Your task to perform on an android device: toggle location history Image 0: 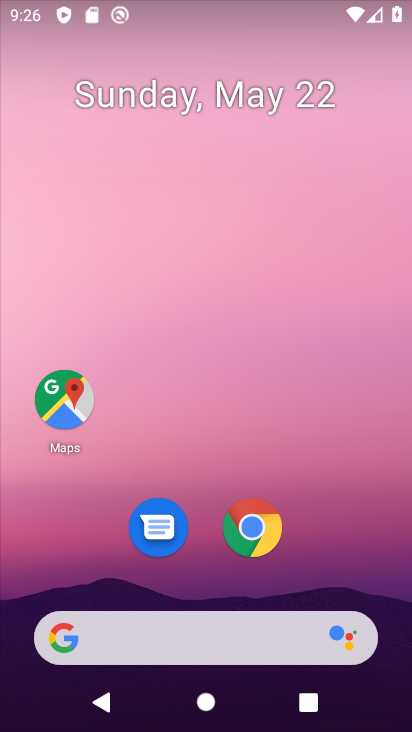
Step 0: drag from (362, 527) to (65, 30)
Your task to perform on an android device: toggle location history Image 1: 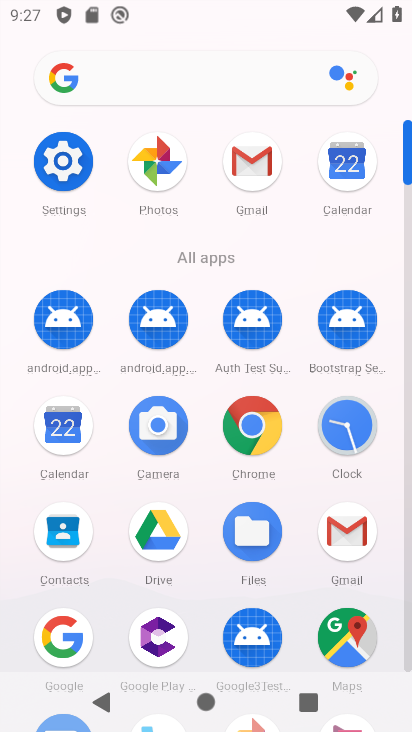
Step 1: click (40, 196)
Your task to perform on an android device: toggle location history Image 2: 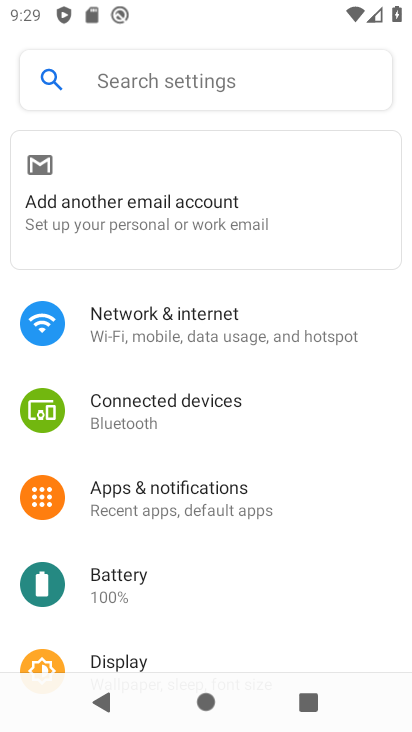
Step 2: drag from (184, 571) to (215, 482)
Your task to perform on an android device: toggle location history Image 3: 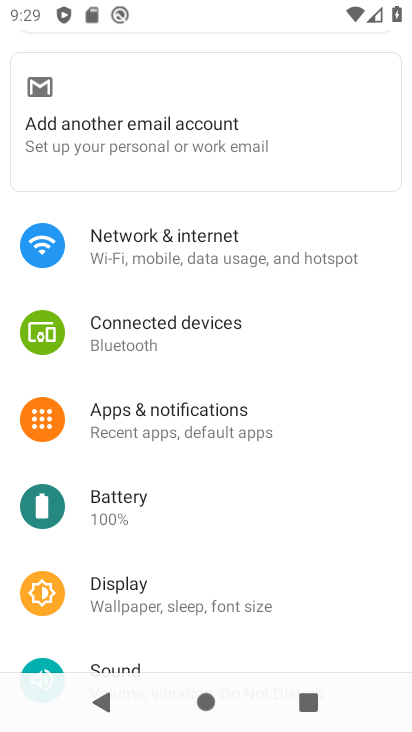
Step 3: drag from (138, 564) to (178, 305)
Your task to perform on an android device: toggle location history Image 4: 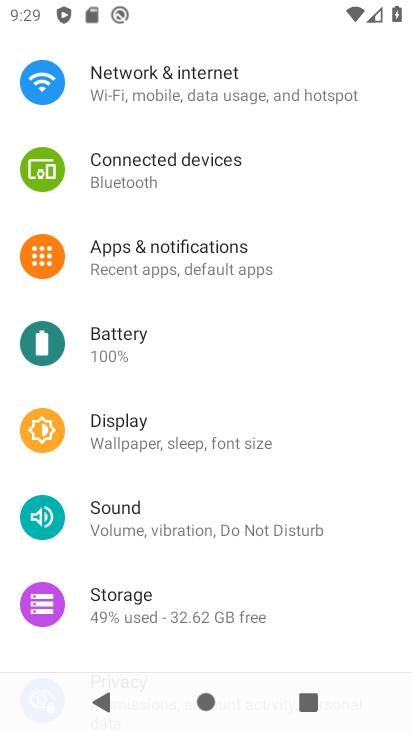
Step 4: drag from (230, 575) to (249, 479)
Your task to perform on an android device: toggle location history Image 5: 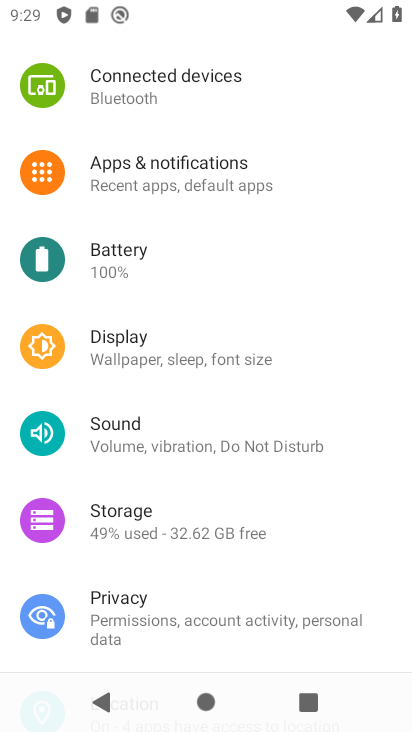
Step 5: drag from (160, 568) to (174, 500)
Your task to perform on an android device: toggle location history Image 6: 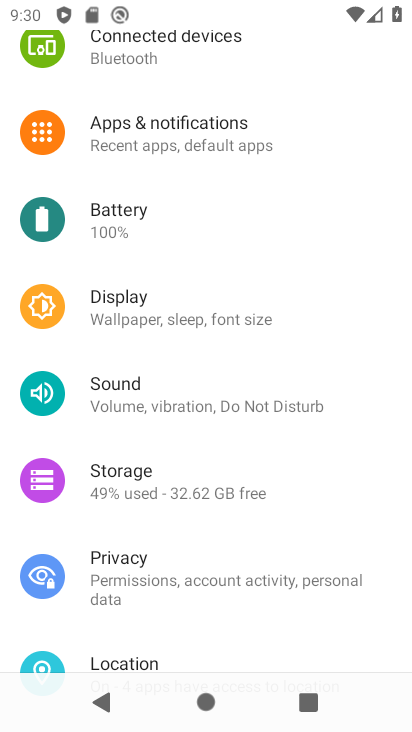
Step 6: drag from (217, 572) to (238, 447)
Your task to perform on an android device: toggle location history Image 7: 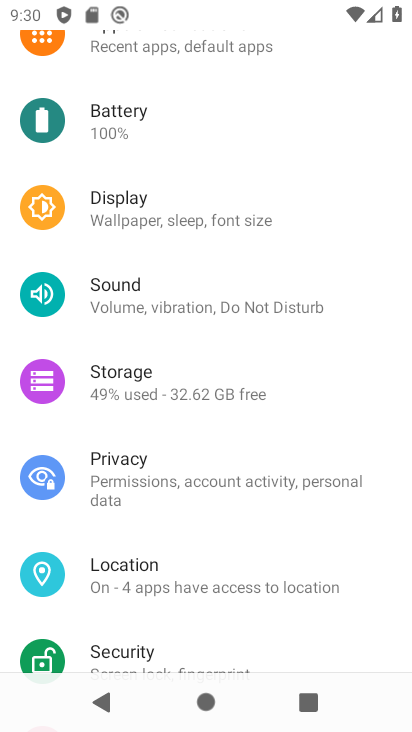
Step 7: click (230, 597)
Your task to perform on an android device: toggle location history Image 8: 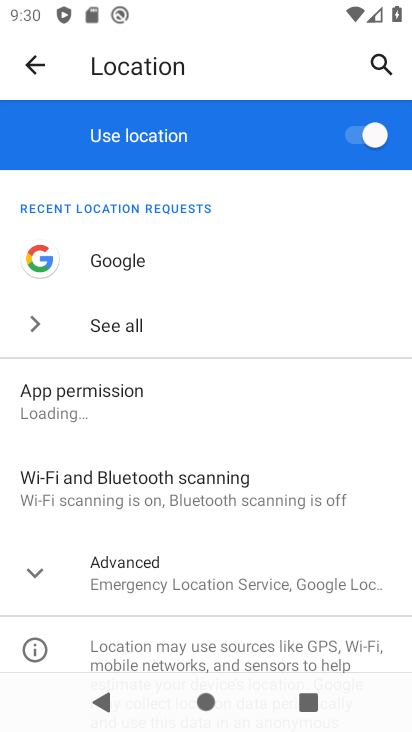
Step 8: drag from (195, 616) to (229, 411)
Your task to perform on an android device: toggle location history Image 9: 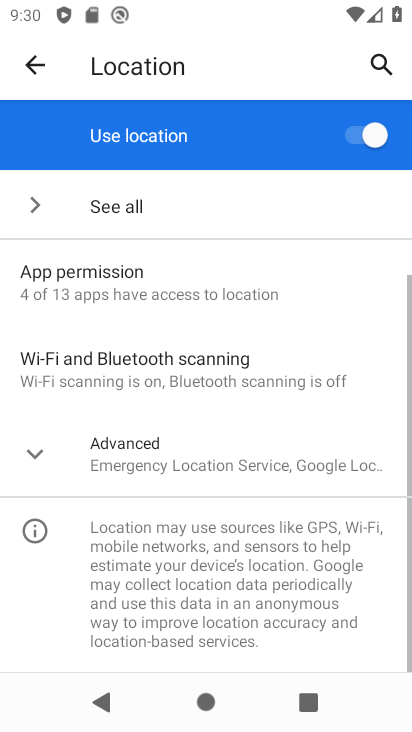
Step 9: click (133, 435)
Your task to perform on an android device: toggle location history Image 10: 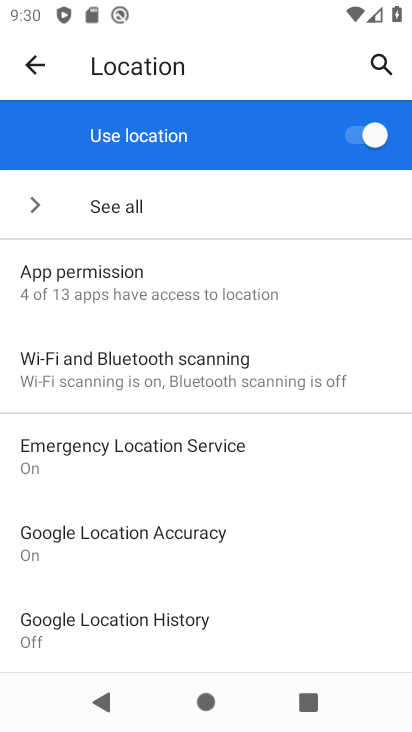
Step 10: click (188, 531)
Your task to perform on an android device: toggle location history Image 11: 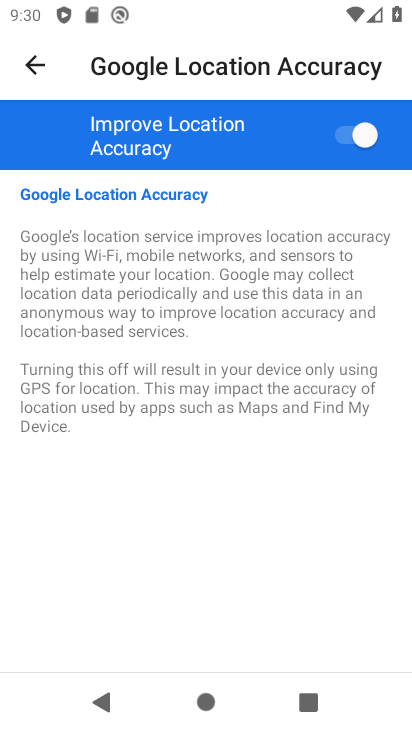
Step 11: task complete